Your task to perform on an android device: change the upload size in google photos Image 0: 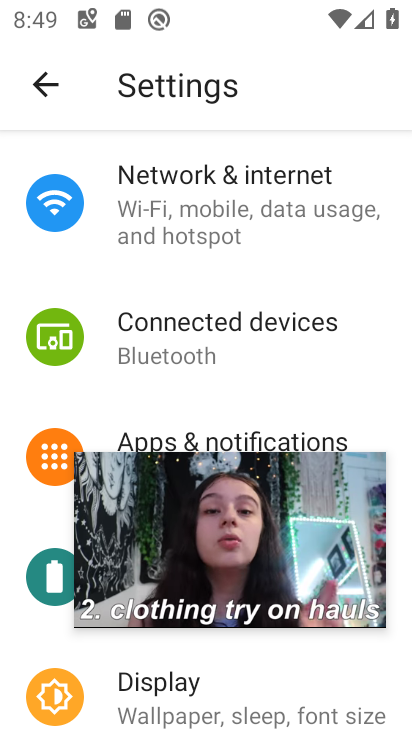
Step 0: press home button
Your task to perform on an android device: change the upload size in google photos Image 1: 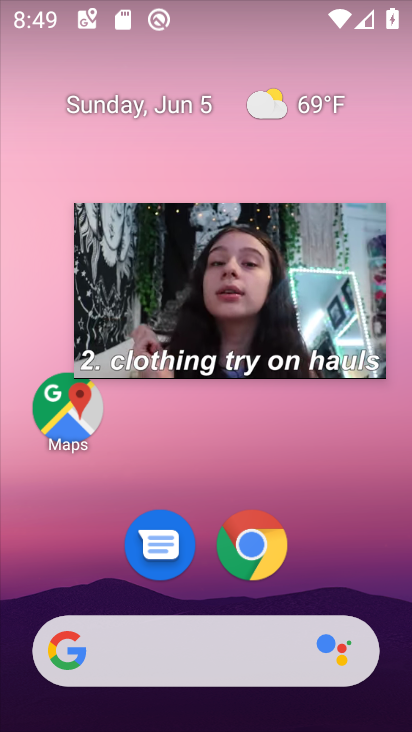
Step 1: drag from (323, 289) to (283, 723)
Your task to perform on an android device: change the upload size in google photos Image 2: 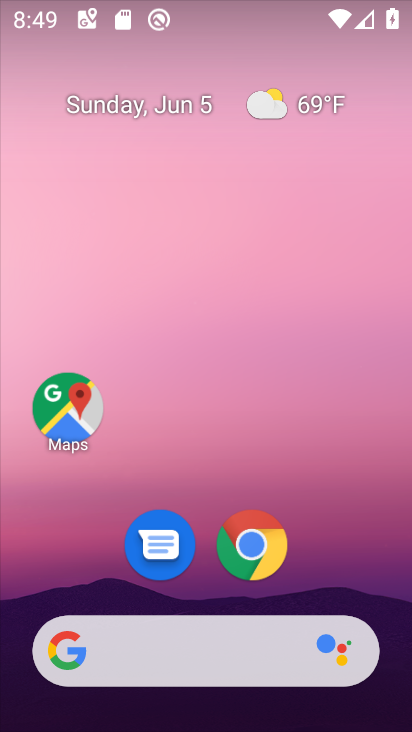
Step 2: drag from (364, 550) to (353, 182)
Your task to perform on an android device: change the upload size in google photos Image 3: 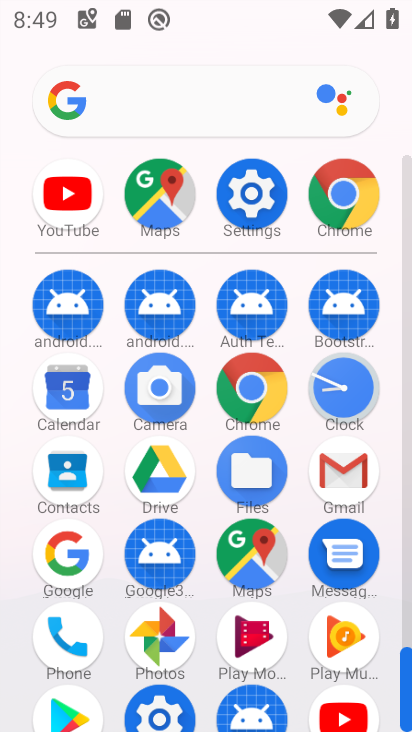
Step 3: click (171, 641)
Your task to perform on an android device: change the upload size in google photos Image 4: 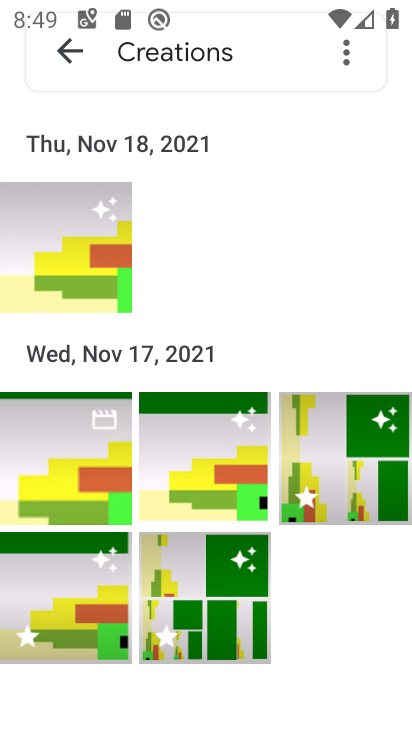
Step 4: press back button
Your task to perform on an android device: change the upload size in google photos Image 5: 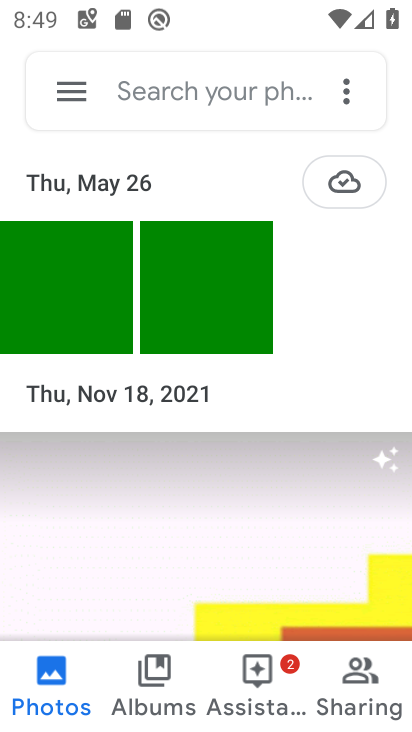
Step 5: click (71, 101)
Your task to perform on an android device: change the upload size in google photos Image 6: 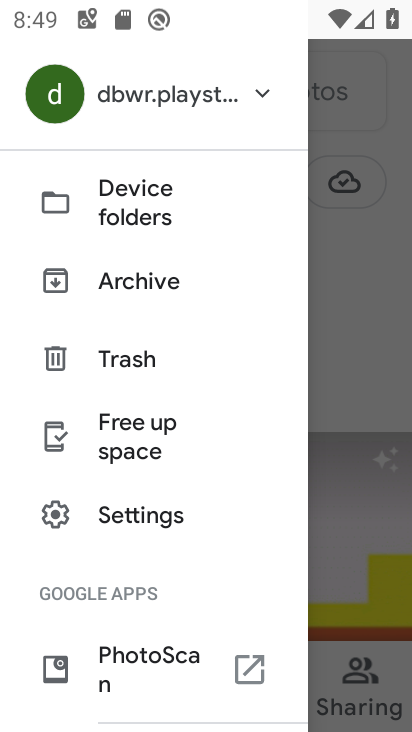
Step 6: drag from (238, 361) to (246, 194)
Your task to perform on an android device: change the upload size in google photos Image 7: 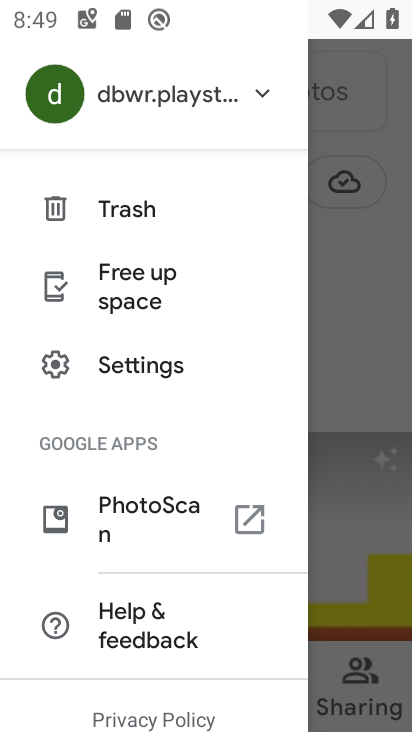
Step 7: click (171, 372)
Your task to perform on an android device: change the upload size in google photos Image 8: 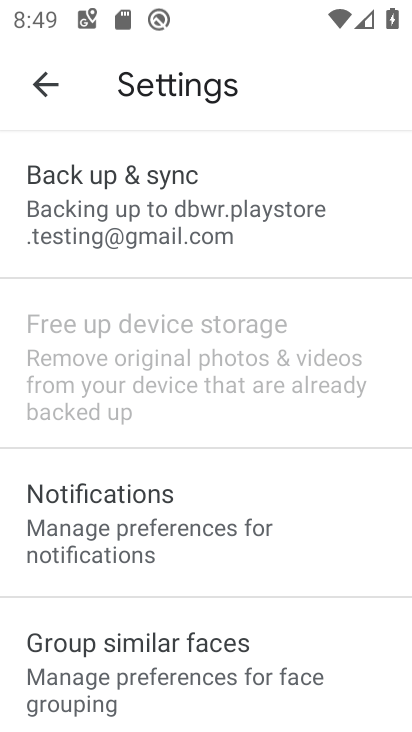
Step 8: drag from (339, 520) to (336, 318)
Your task to perform on an android device: change the upload size in google photos Image 9: 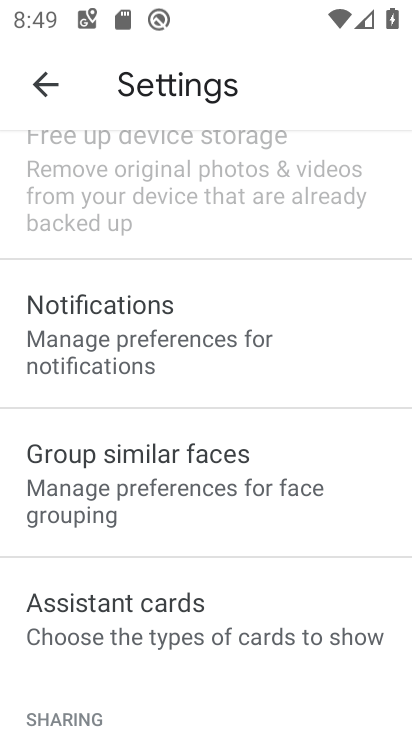
Step 9: drag from (355, 235) to (366, 459)
Your task to perform on an android device: change the upload size in google photos Image 10: 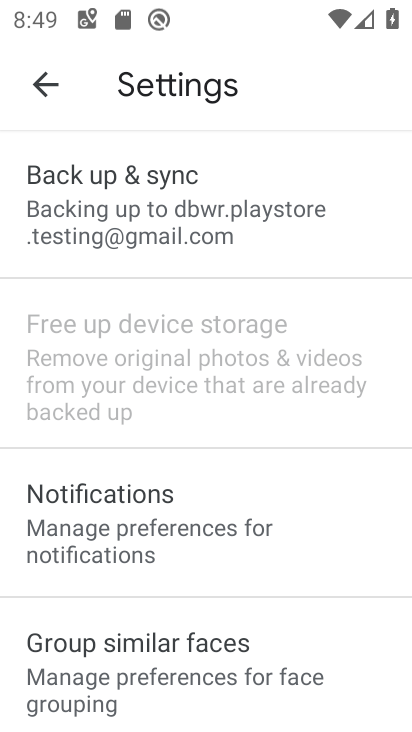
Step 10: click (234, 202)
Your task to perform on an android device: change the upload size in google photos Image 11: 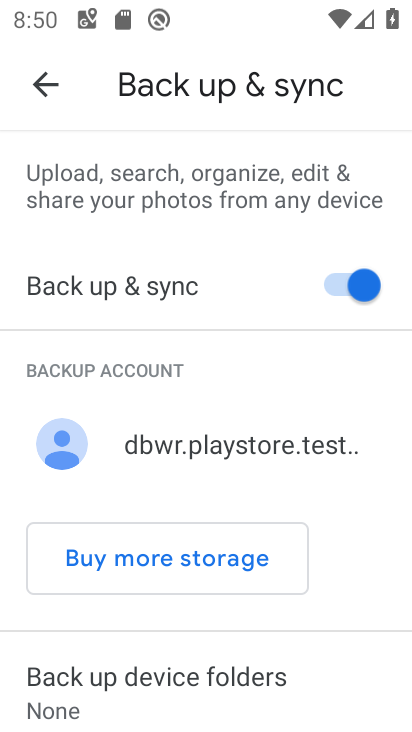
Step 11: drag from (344, 503) to (336, 335)
Your task to perform on an android device: change the upload size in google photos Image 12: 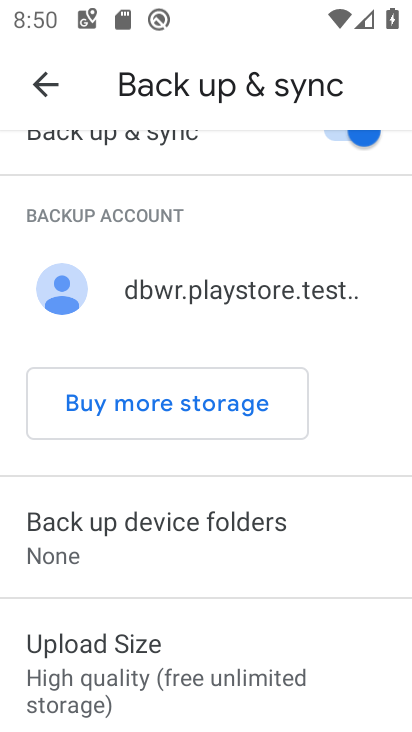
Step 12: drag from (347, 533) to (340, 313)
Your task to perform on an android device: change the upload size in google photos Image 13: 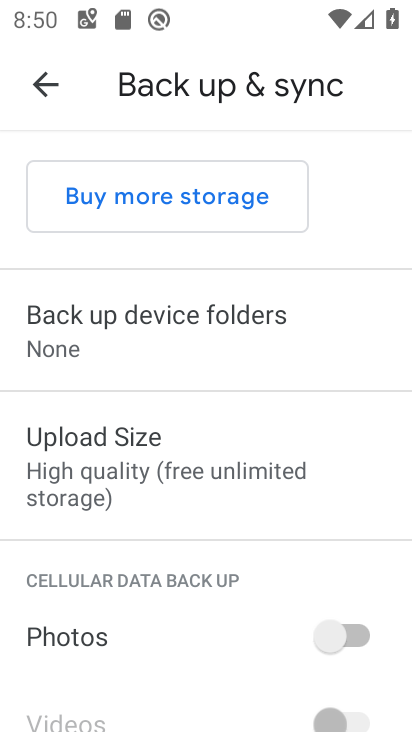
Step 13: drag from (334, 513) to (373, 271)
Your task to perform on an android device: change the upload size in google photos Image 14: 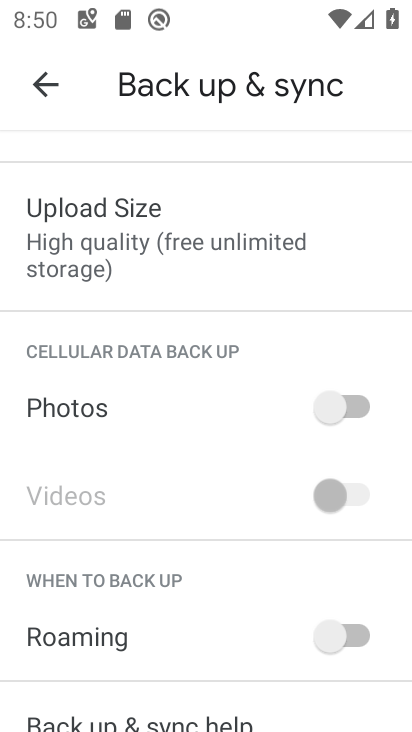
Step 14: click (215, 255)
Your task to perform on an android device: change the upload size in google photos Image 15: 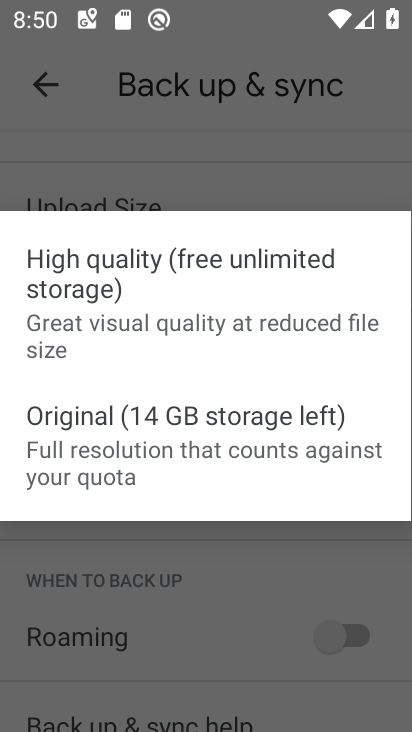
Step 15: click (177, 454)
Your task to perform on an android device: change the upload size in google photos Image 16: 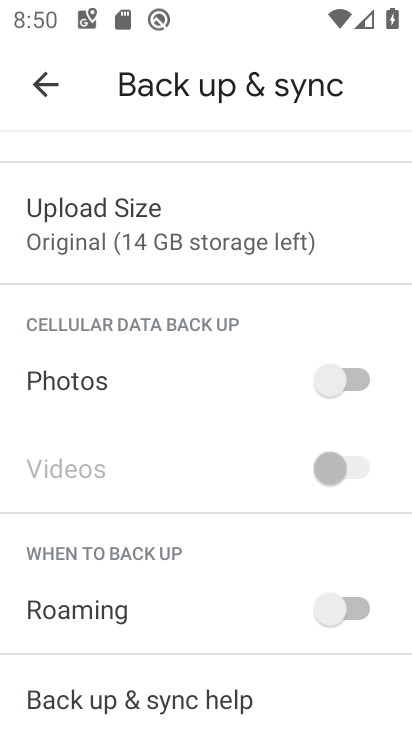
Step 16: task complete